Your task to perform on an android device: find snoozed emails in the gmail app Image 0: 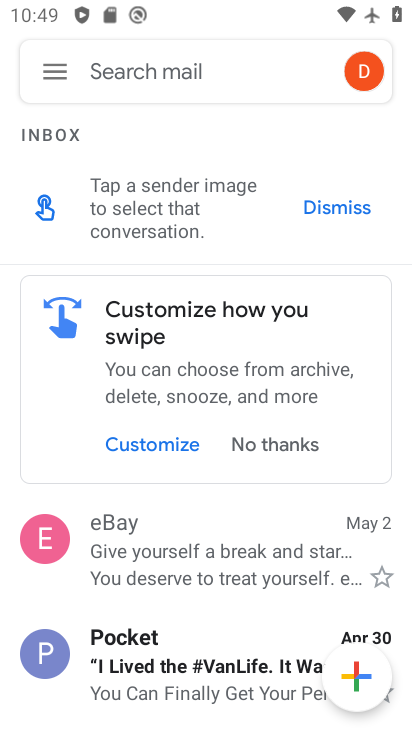
Step 0: click (57, 52)
Your task to perform on an android device: find snoozed emails in the gmail app Image 1: 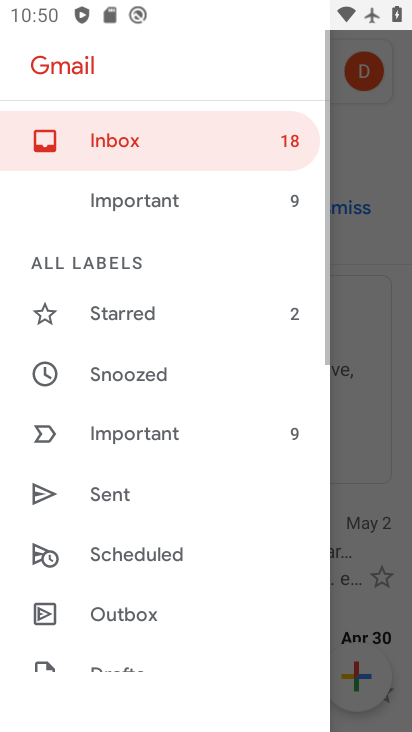
Step 1: click (162, 371)
Your task to perform on an android device: find snoozed emails in the gmail app Image 2: 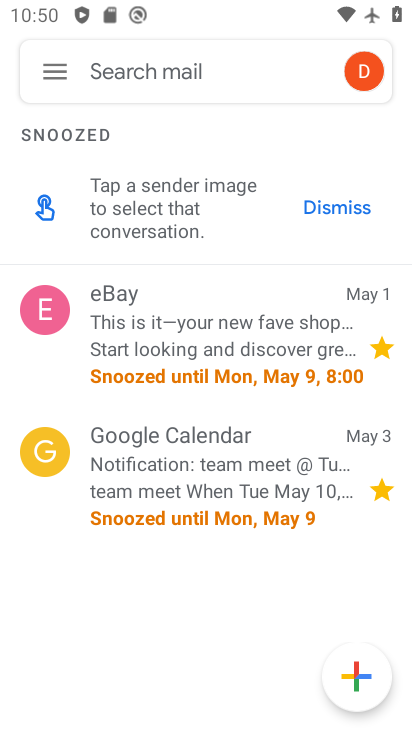
Step 2: task complete